Your task to perform on an android device: Turn on the flashlight Image 0: 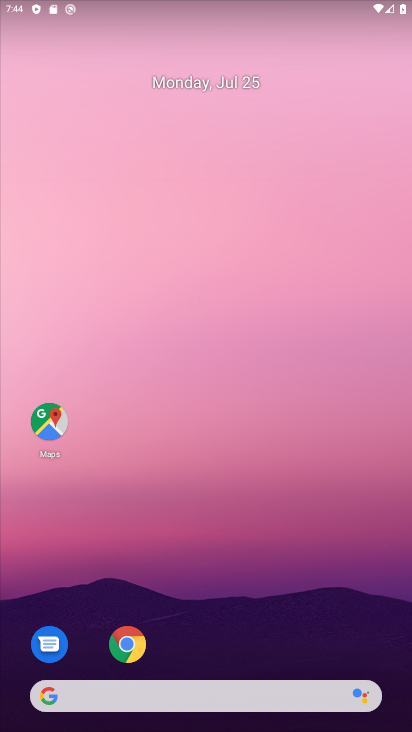
Step 0: drag from (211, 360) to (239, 65)
Your task to perform on an android device: Turn on the flashlight Image 1: 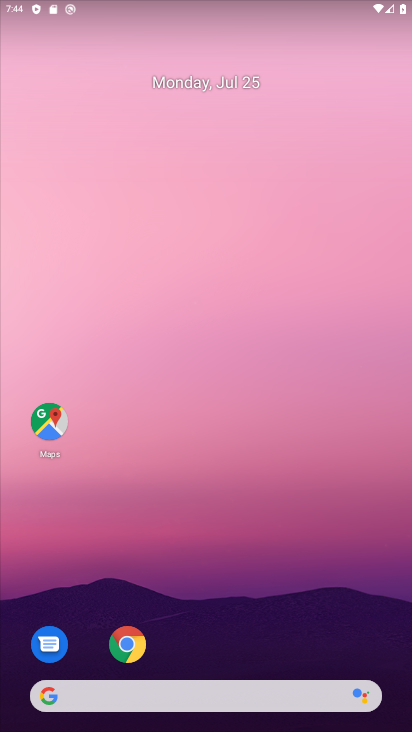
Step 1: drag from (229, 488) to (233, 161)
Your task to perform on an android device: Turn on the flashlight Image 2: 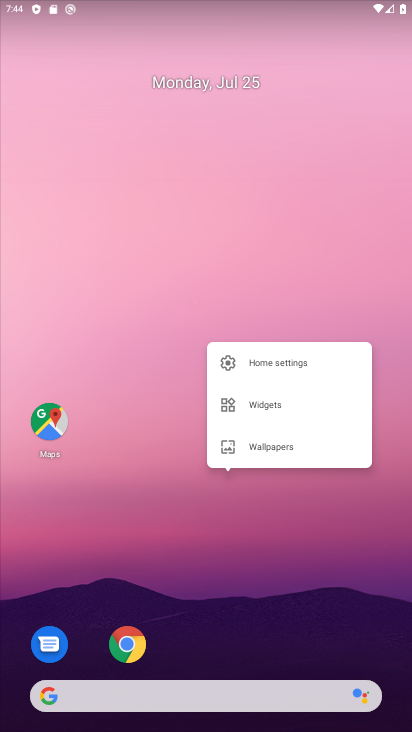
Step 2: drag from (181, 581) to (260, 19)
Your task to perform on an android device: Turn on the flashlight Image 3: 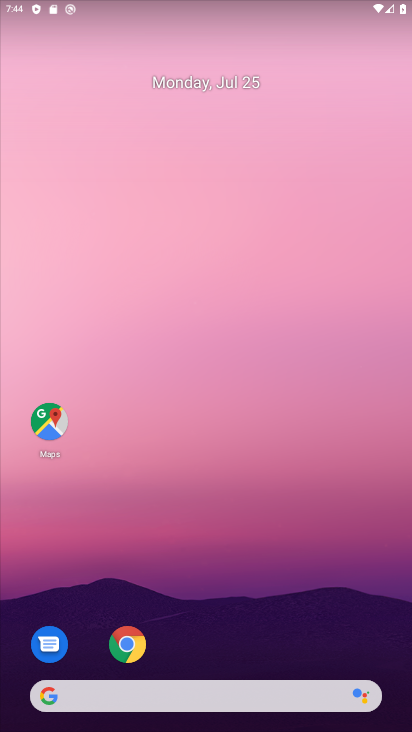
Step 3: drag from (179, 564) to (162, 93)
Your task to perform on an android device: Turn on the flashlight Image 4: 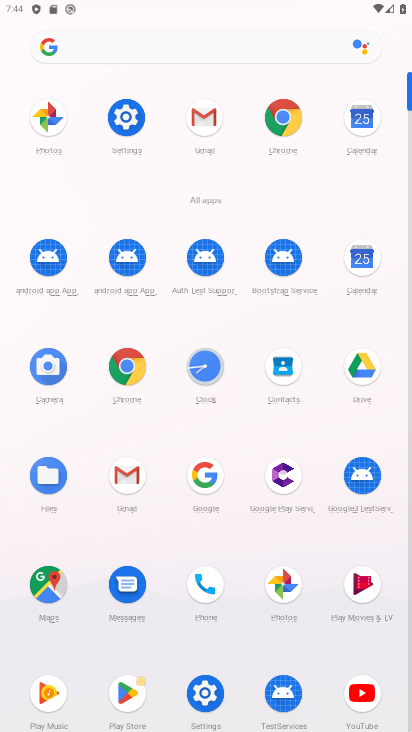
Step 4: click (115, 128)
Your task to perform on an android device: Turn on the flashlight Image 5: 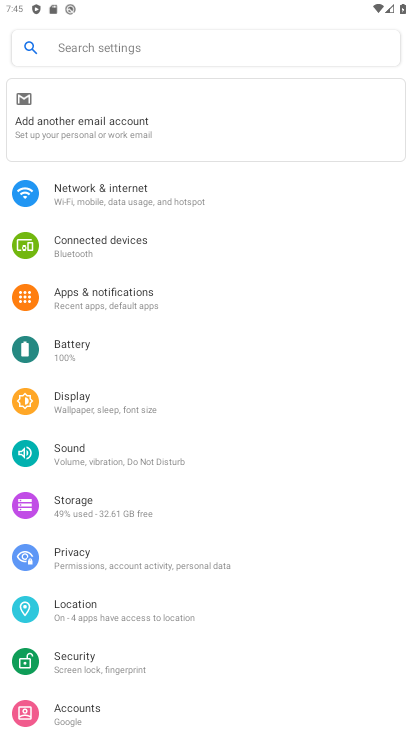
Step 5: task complete